Your task to perform on an android device: Open sound settings Image 0: 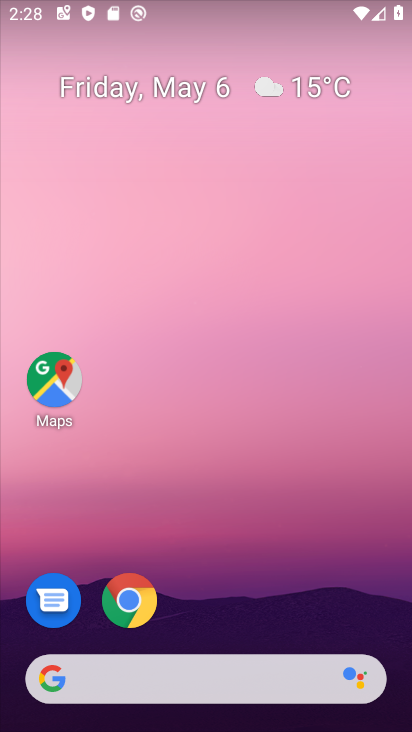
Step 0: drag from (272, 578) to (291, 0)
Your task to perform on an android device: Open sound settings Image 1: 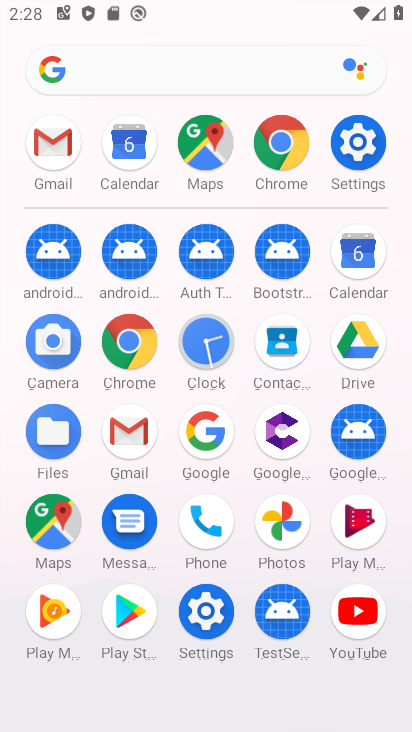
Step 1: drag from (11, 604) to (10, 299)
Your task to perform on an android device: Open sound settings Image 2: 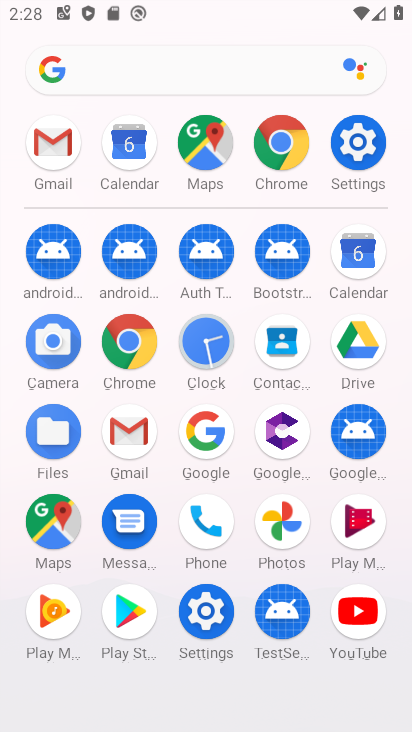
Step 2: click (206, 607)
Your task to perform on an android device: Open sound settings Image 3: 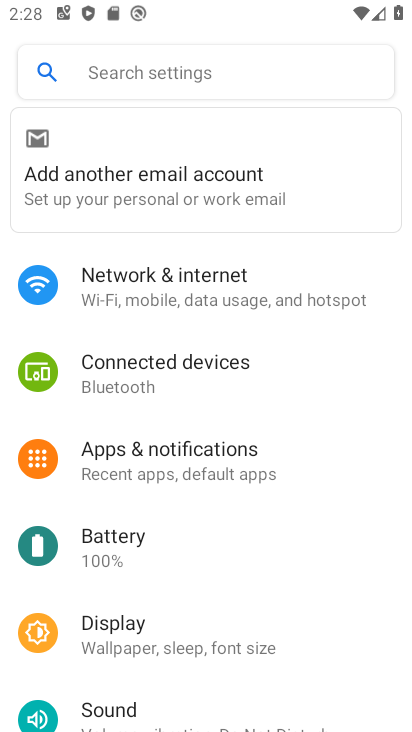
Step 3: drag from (215, 654) to (251, 280)
Your task to perform on an android device: Open sound settings Image 4: 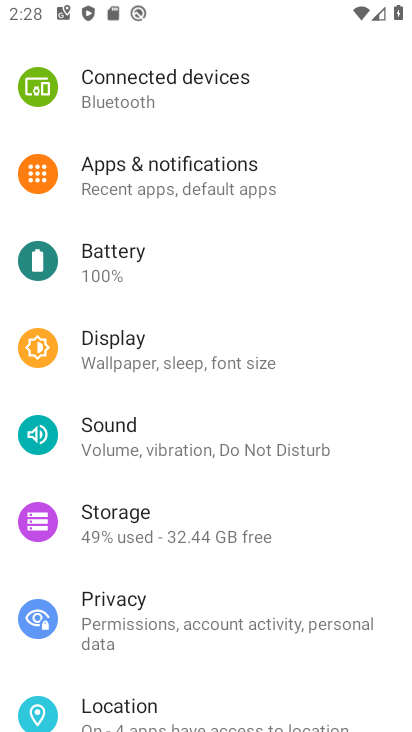
Step 4: click (165, 427)
Your task to perform on an android device: Open sound settings Image 5: 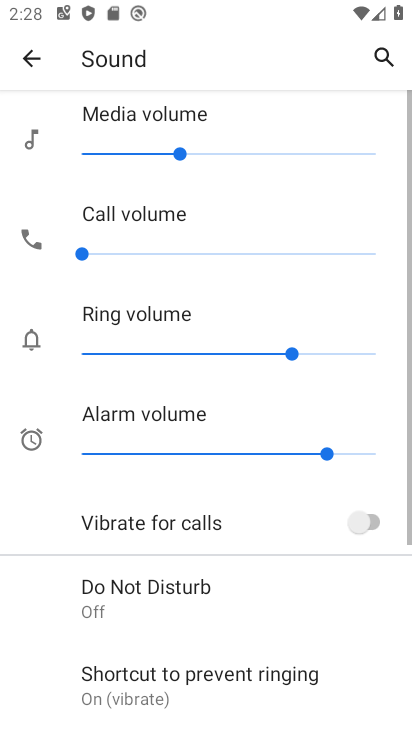
Step 5: task complete